Your task to perform on an android device: visit the assistant section in the google photos Image 0: 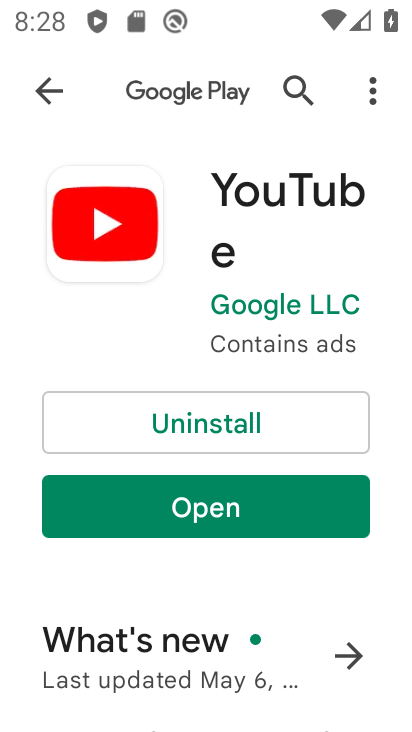
Step 0: press home button
Your task to perform on an android device: visit the assistant section in the google photos Image 1: 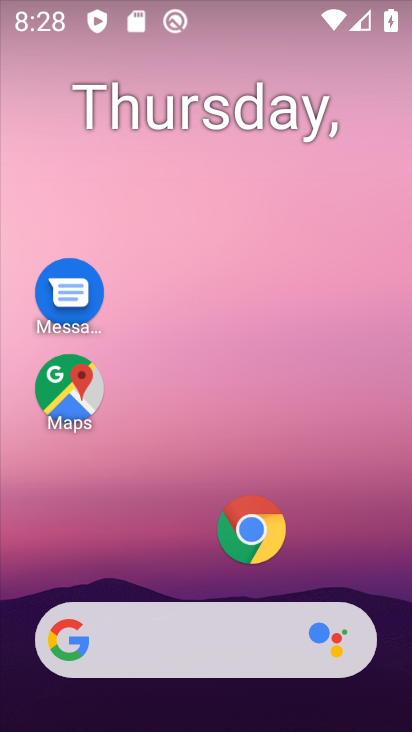
Step 1: drag from (163, 572) to (182, 28)
Your task to perform on an android device: visit the assistant section in the google photos Image 2: 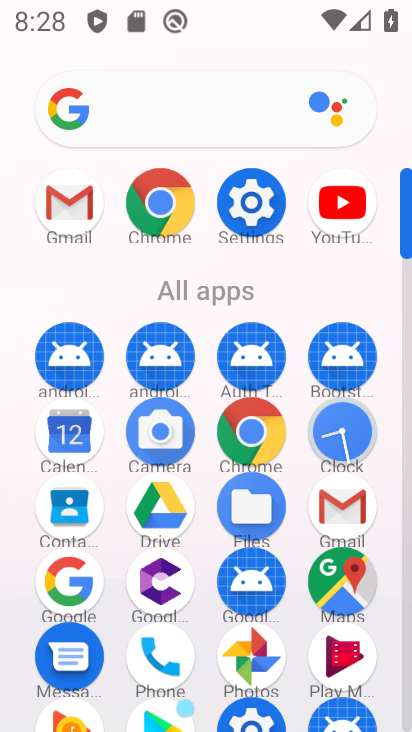
Step 2: click (245, 669)
Your task to perform on an android device: visit the assistant section in the google photos Image 3: 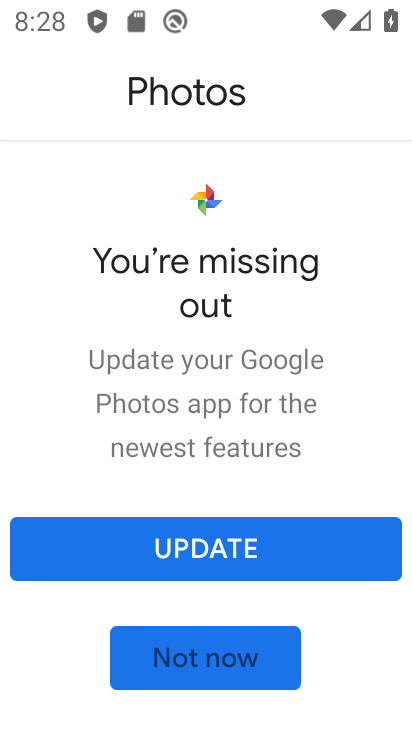
Step 3: click (245, 669)
Your task to perform on an android device: visit the assistant section in the google photos Image 4: 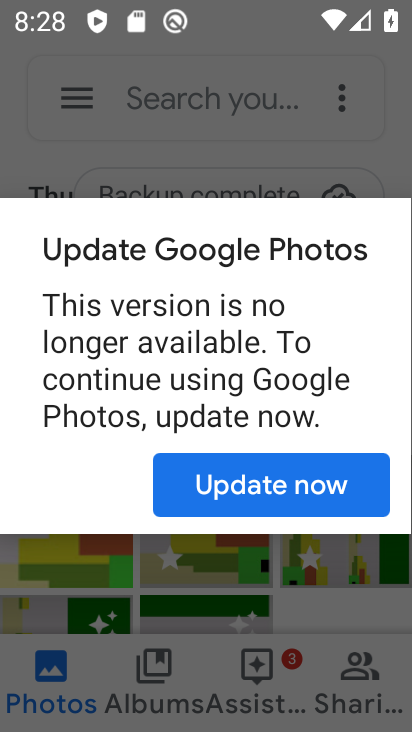
Step 4: click (256, 490)
Your task to perform on an android device: visit the assistant section in the google photos Image 5: 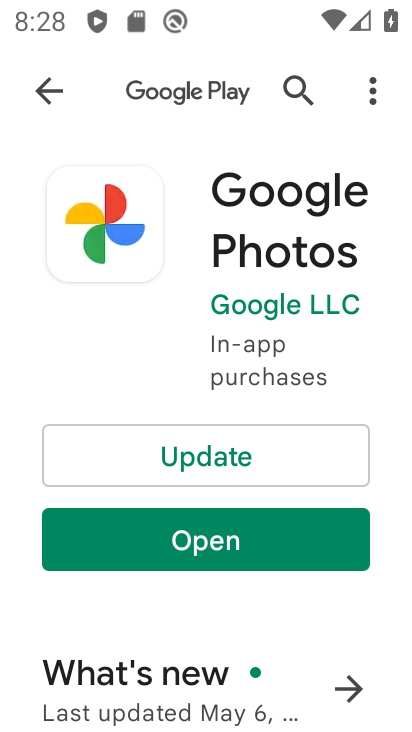
Step 5: click (217, 533)
Your task to perform on an android device: visit the assistant section in the google photos Image 6: 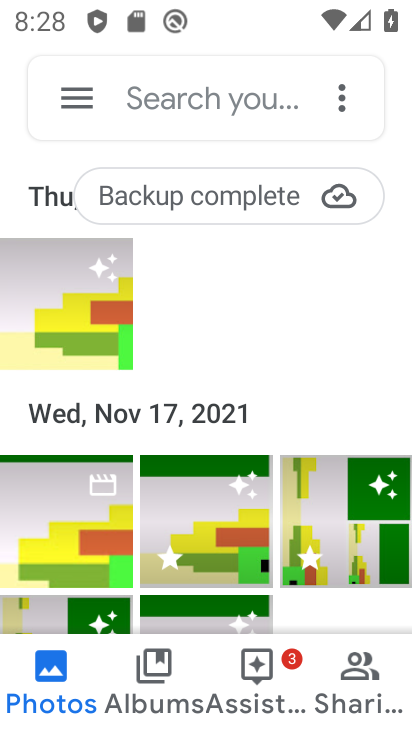
Step 6: click (270, 676)
Your task to perform on an android device: visit the assistant section in the google photos Image 7: 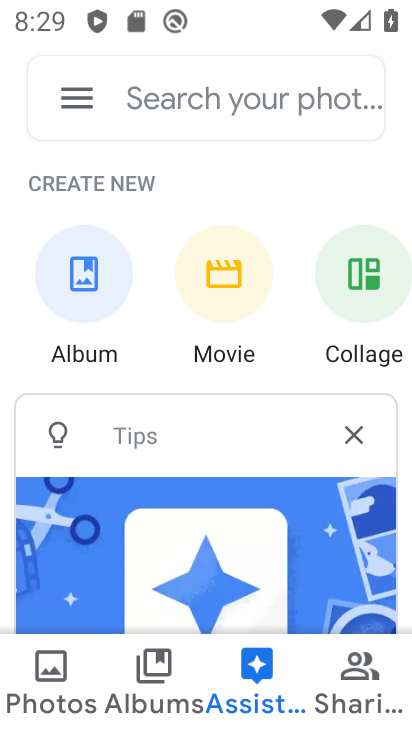
Step 7: task complete